Your task to perform on an android device: show emergency info Image 0: 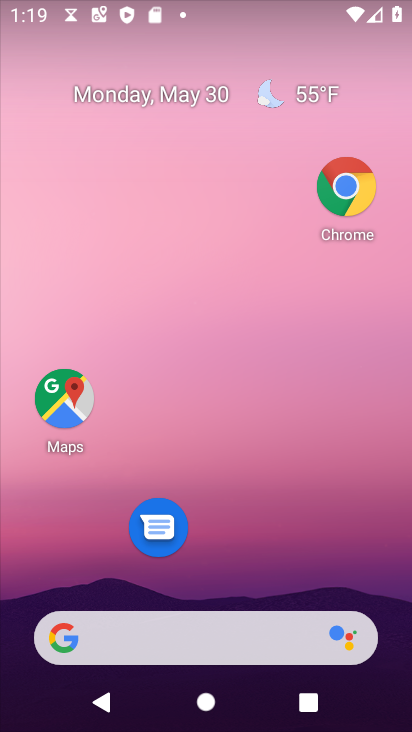
Step 0: drag from (223, 529) to (227, 66)
Your task to perform on an android device: show emergency info Image 1: 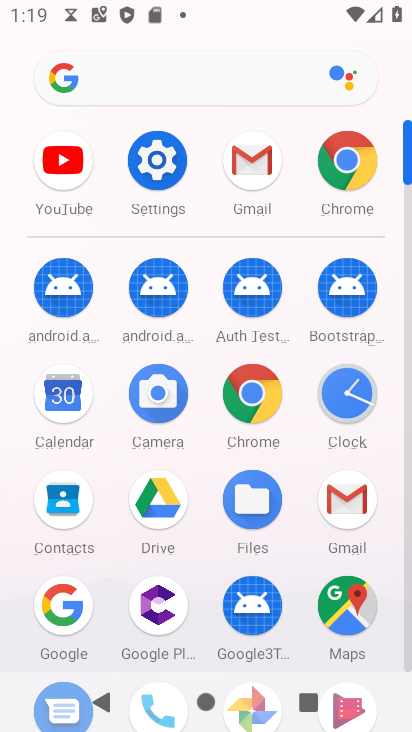
Step 1: click (168, 157)
Your task to perform on an android device: show emergency info Image 2: 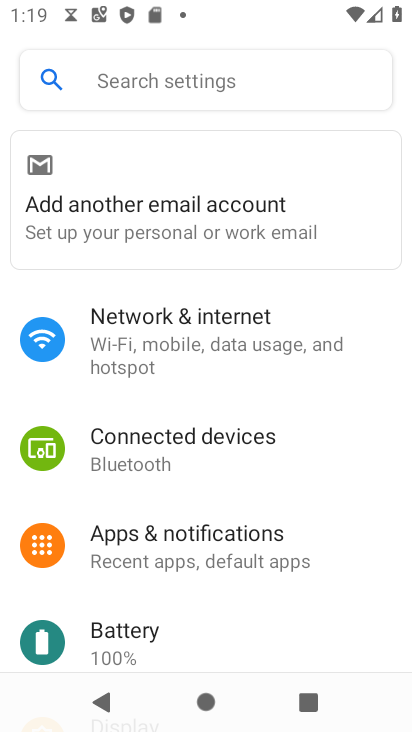
Step 2: drag from (207, 588) to (287, 15)
Your task to perform on an android device: show emergency info Image 3: 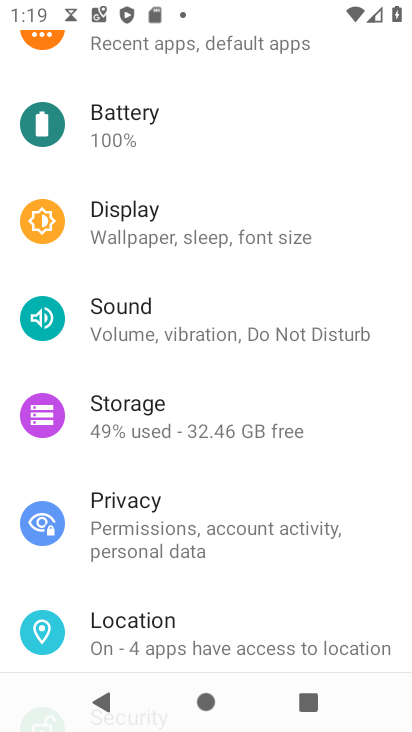
Step 3: drag from (196, 555) to (227, 38)
Your task to perform on an android device: show emergency info Image 4: 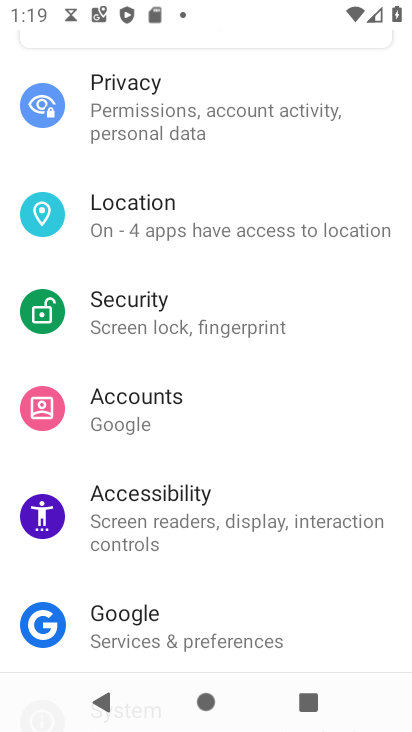
Step 4: drag from (216, 624) to (247, 55)
Your task to perform on an android device: show emergency info Image 5: 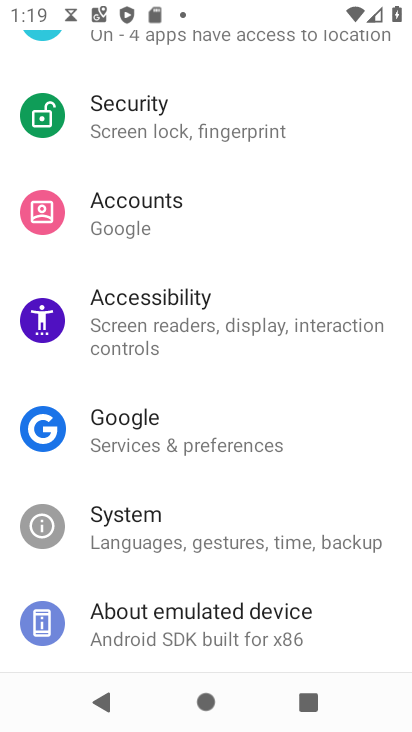
Step 5: click (208, 627)
Your task to perform on an android device: show emergency info Image 6: 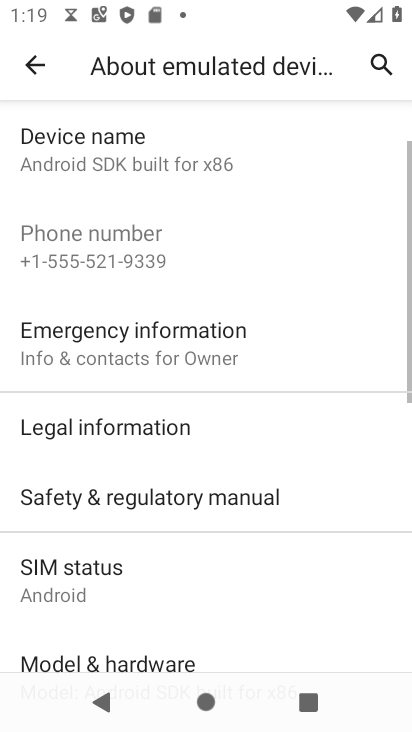
Step 6: drag from (214, 571) to (221, 415)
Your task to perform on an android device: show emergency info Image 7: 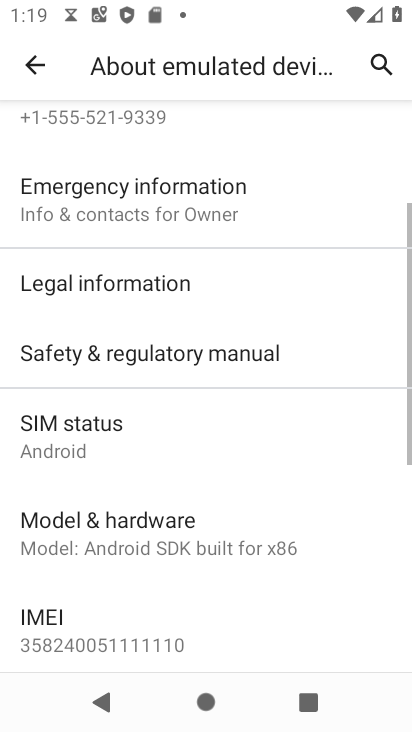
Step 7: click (167, 210)
Your task to perform on an android device: show emergency info Image 8: 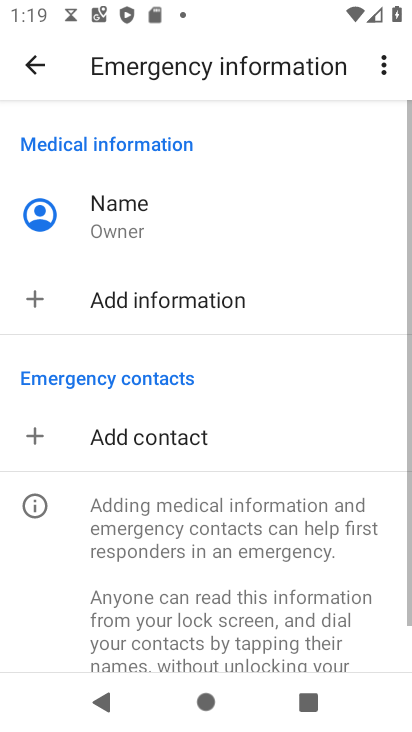
Step 8: task complete